Your task to perform on an android device: Show me recent news Image 0: 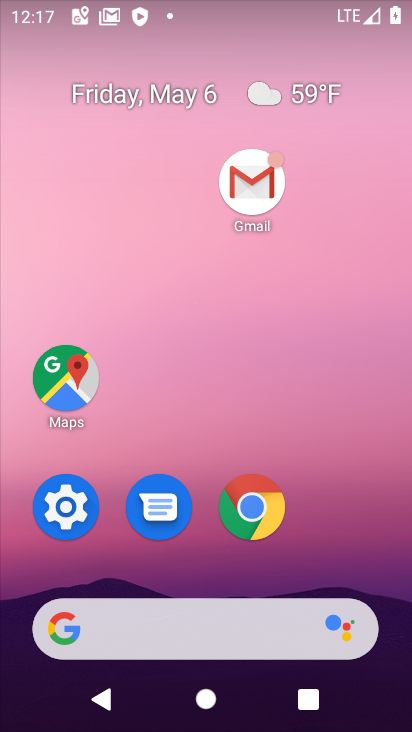
Step 0: drag from (69, 263) to (393, 411)
Your task to perform on an android device: Show me recent news Image 1: 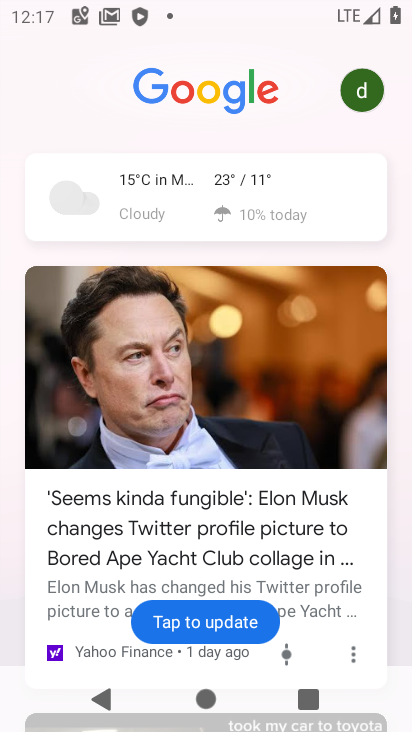
Step 1: task complete